Your task to perform on an android device: turn off notifications settings in the gmail app Image 0: 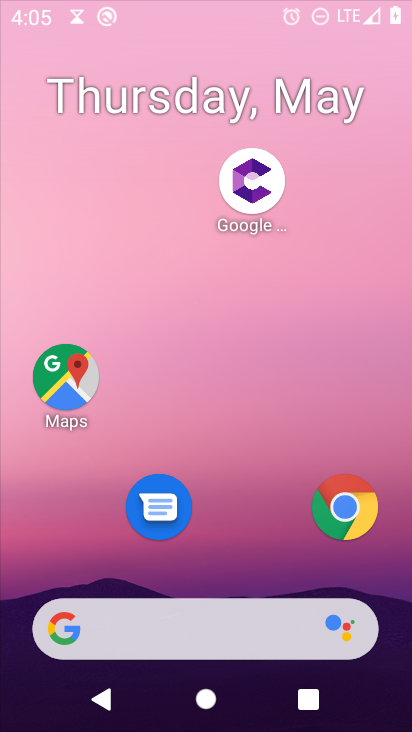
Step 0: press home button
Your task to perform on an android device: turn off notifications settings in the gmail app Image 1: 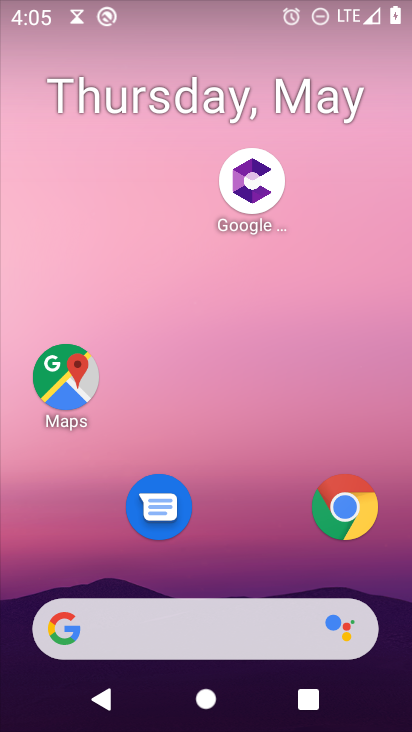
Step 1: click (402, 484)
Your task to perform on an android device: turn off notifications settings in the gmail app Image 2: 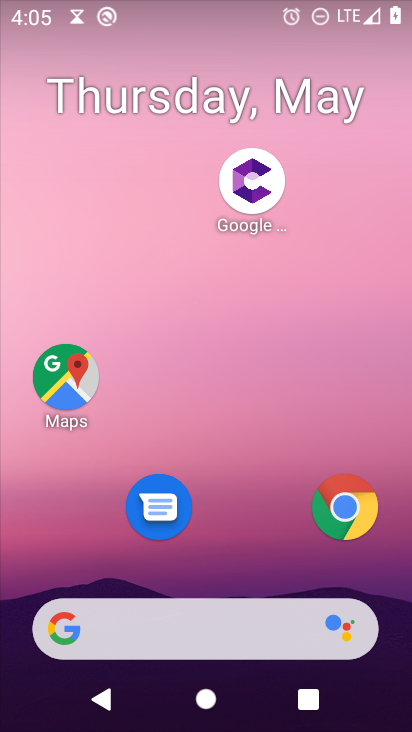
Step 2: drag from (199, 571) to (238, 2)
Your task to perform on an android device: turn off notifications settings in the gmail app Image 3: 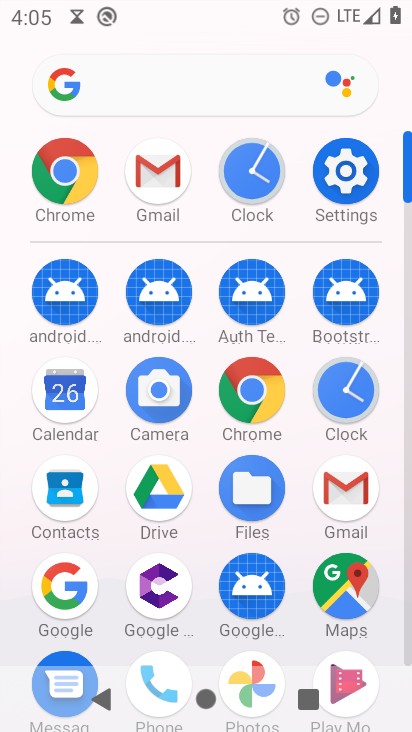
Step 3: click (173, 162)
Your task to perform on an android device: turn off notifications settings in the gmail app Image 4: 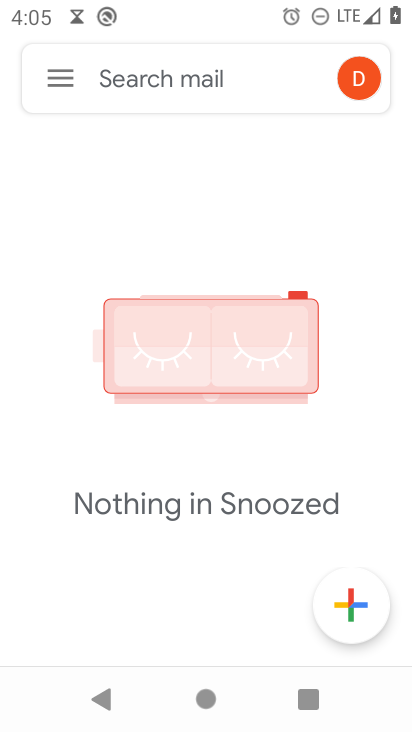
Step 4: click (54, 70)
Your task to perform on an android device: turn off notifications settings in the gmail app Image 5: 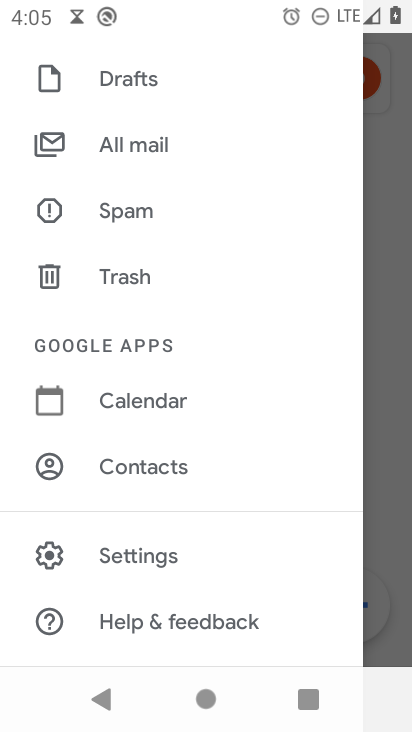
Step 5: click (152, 559)
Your task to perform on an android device: turn off notifications settings in the gmail app Image 6: 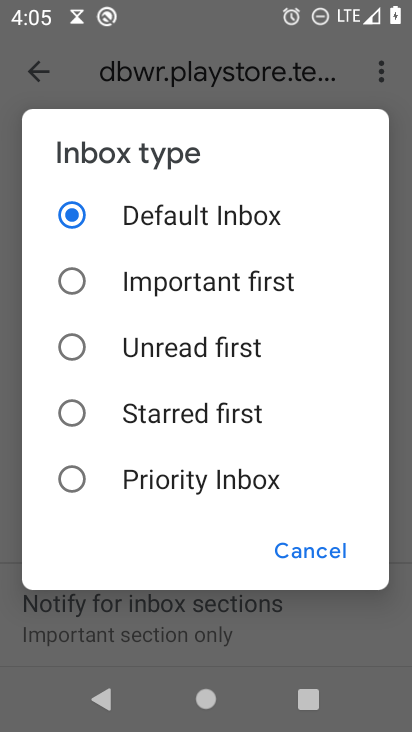
Step 6: click (277, 549)
Your task to perform on an android device: turn off notifications settings in the gmail app Image 7: 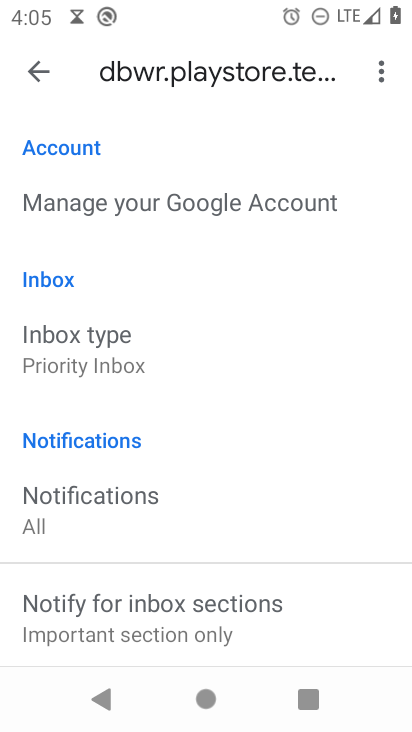
Step 7: click (36, 79)
Your task to perform on an android device: turn off notifications settings in the gmail app Image 8: 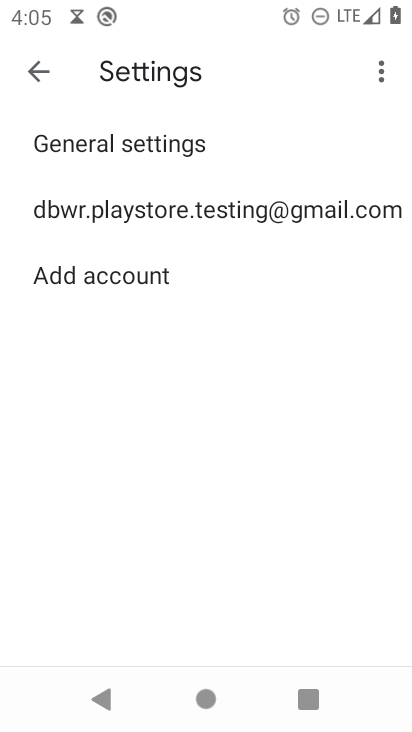
Step 8: click (130, 151)
Your task to perform on an android device: turn off notifications settings in the gmail app Image 9: 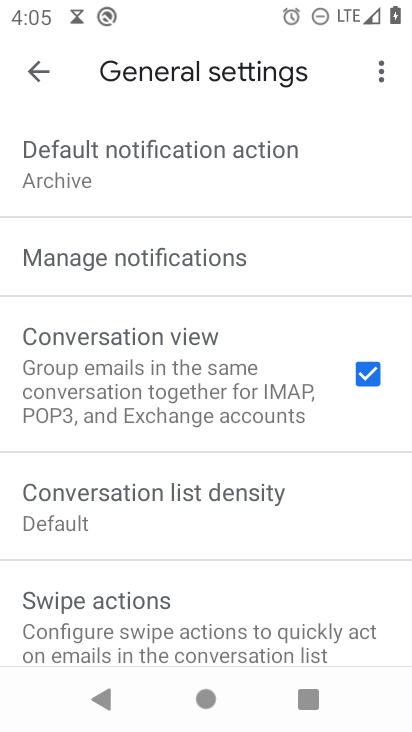
Step 9: click (156, 255)
Your task to perform on an android device: turn off notifications settings in the gmail app Image 10: 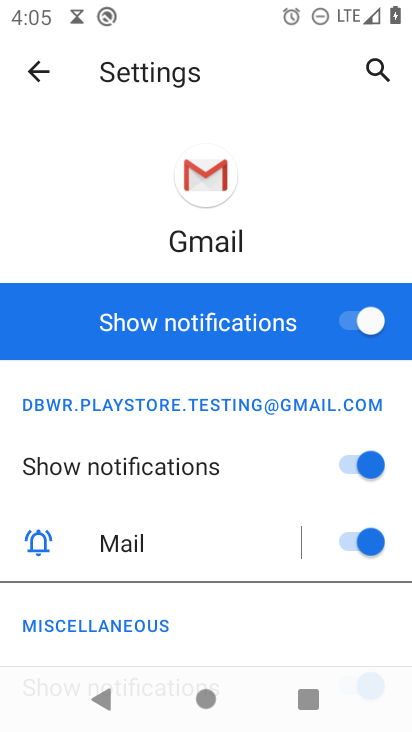
Step 10: click (359, 326)
Your task to perform on an android device: turn off notifications settings in the gmail app Image 11: 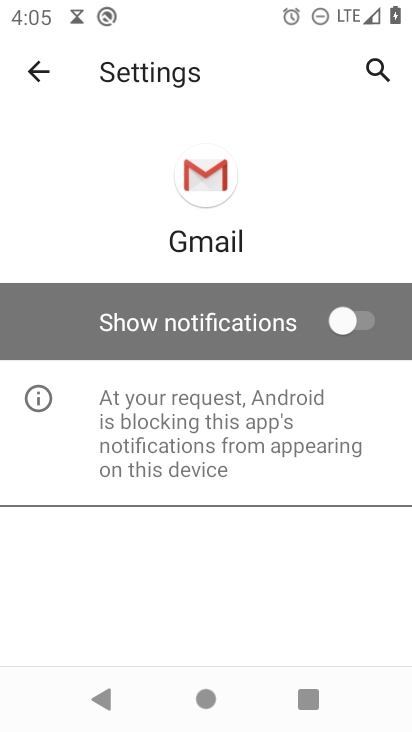
Step 11: task complete